Your task to perform on an android device: clear all cookies in the chrome app Image 0: 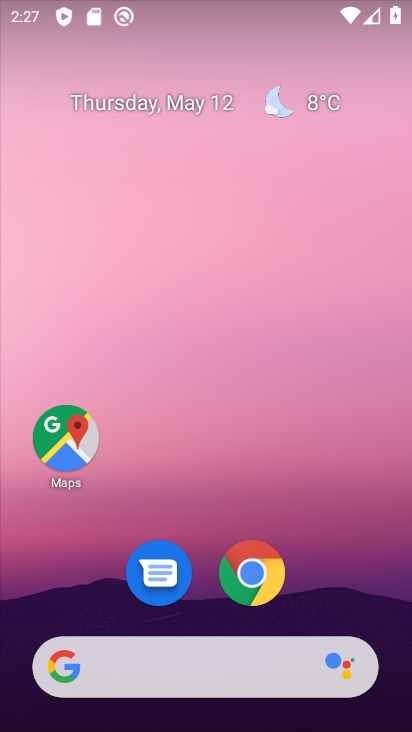
Step 0: click (271, 576)
Your task to perform on an android device: clear all cookies in the chrome app Image 1: 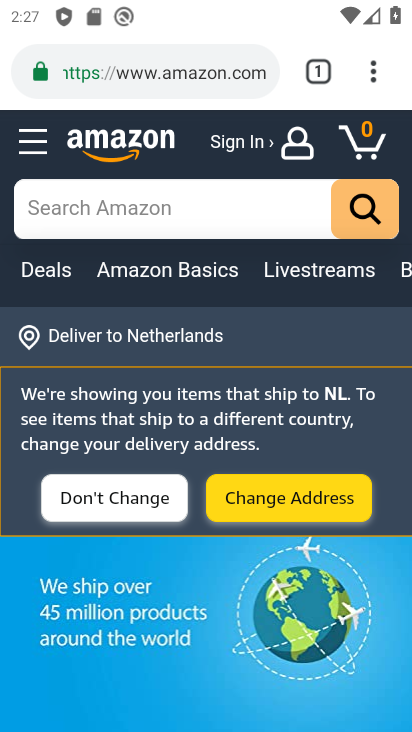
Step 1: drag from (370, 69) to (125, 571)
Your task to perform on an android device: clear all cookies in the chrome app Image 2: 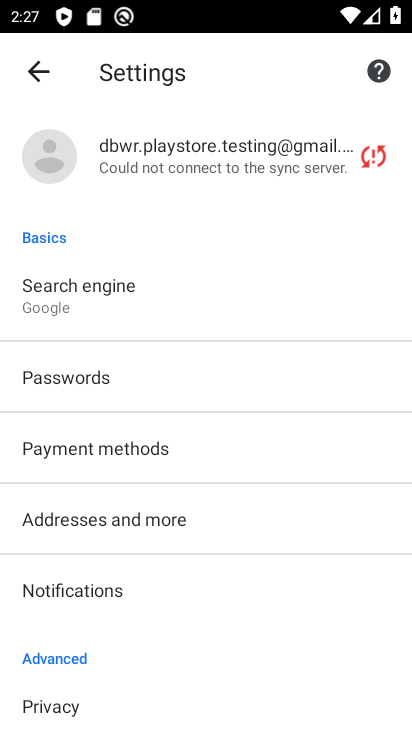
Step 2: click (43, 697)
Your task to perform on an android device: clear all cookies in the chrome app Image 3: 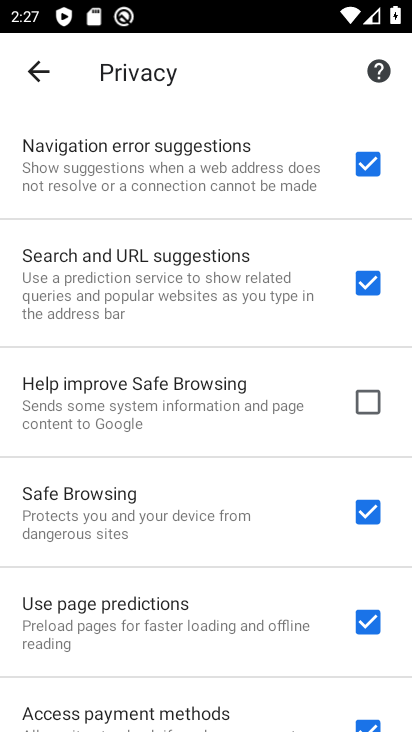
Step 3: drag from (253, 607) to (286, 221)
Your task to perform on an android device: clear all cookies in the chrome app Image 4: 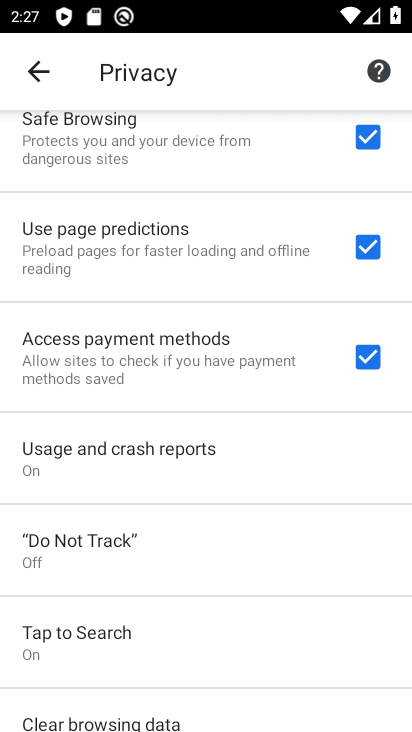
Step 4: drag from (231, 578) to (301, 265)
Your task to perform on an android device: clear all cookies in the chrome app Image 5: 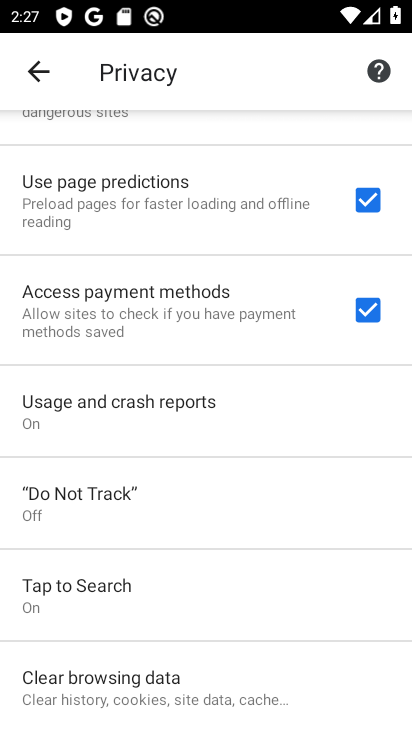
Step 5: click (85, 686)
Your task to perform on an android device: clear all cookies in the chrome app Image 6: 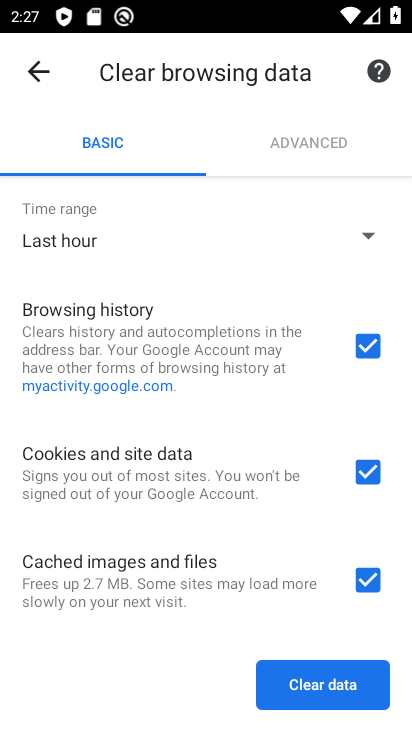
Step 6: click (326, 684)
Your task to perform on an android device: clear all cookies in the chrome app Image 7: 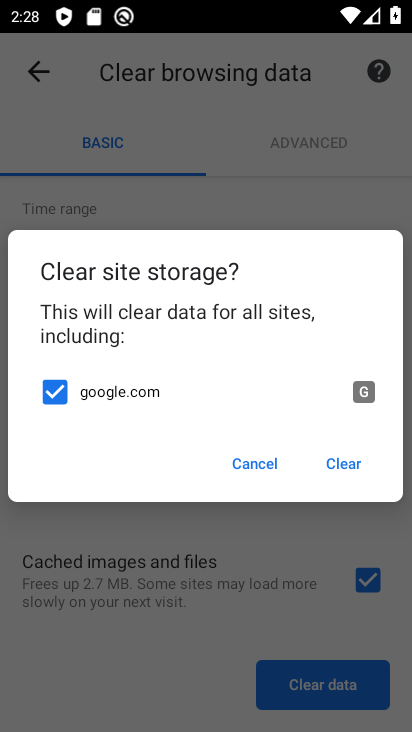
Step 7: click (353, 466)
Your task to perform on an android device: clear all cookies in the chrome app Image 8: 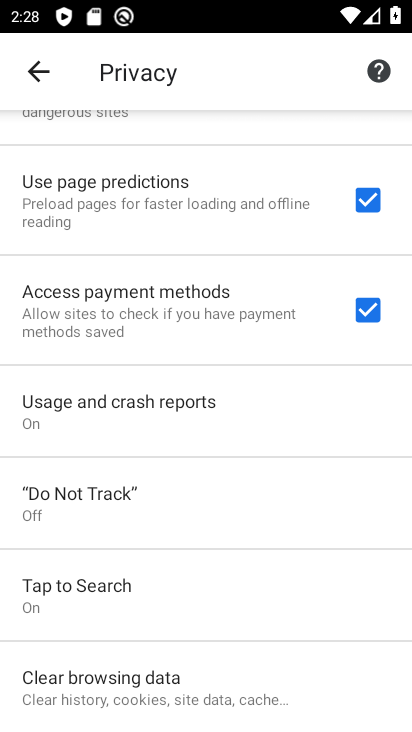
Step 8: task complete